Your task to perform on an android device: Open location settings Image 0: 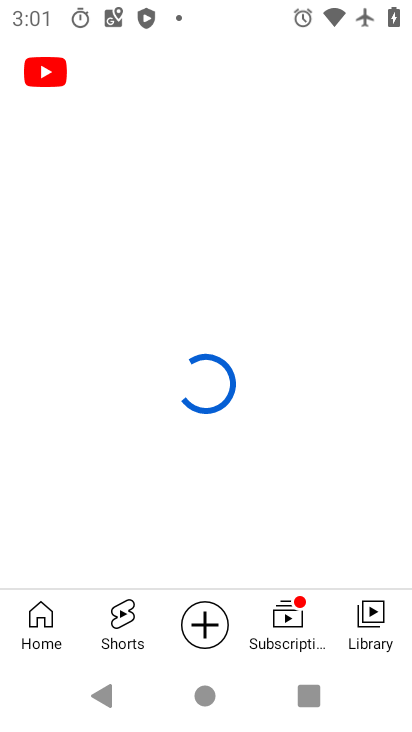
Step 0: press home button
Your task to perform on an android device: Open location settings Image 1: 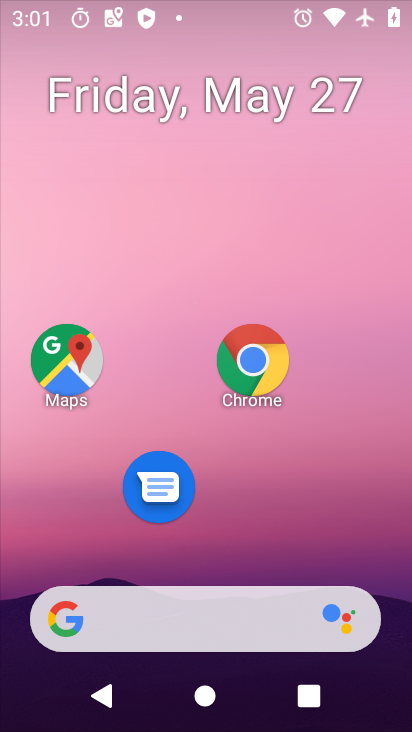
Step 1: drag from (256, 546) to (322, 18)
Your task to perform on an android device: Open location settings Image 2: 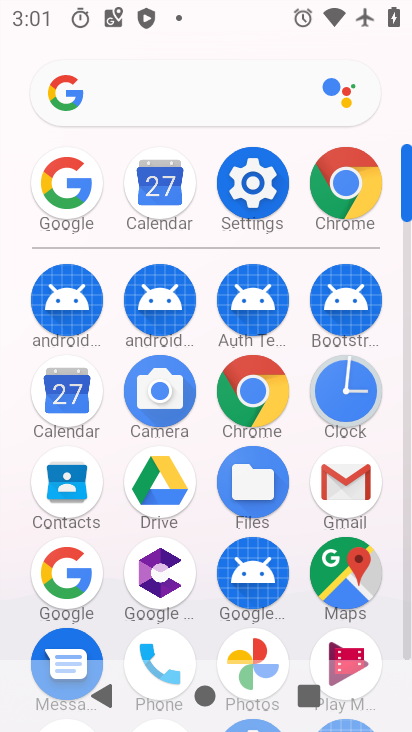
Step 2: click (251, 175)
Your task to perform on an android device: Open location settings Image 3: 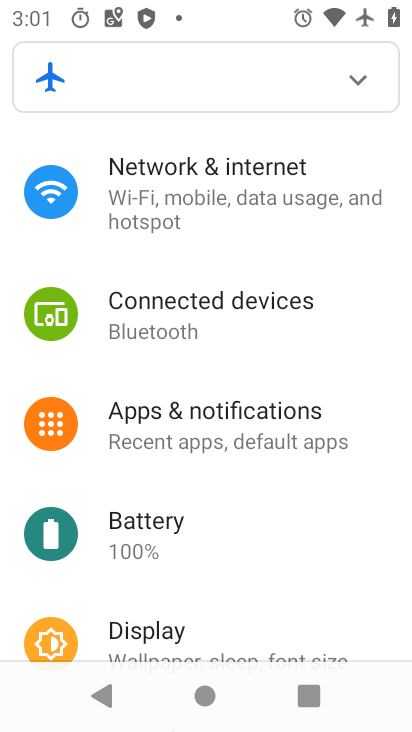
Step 3: drag from (236, 557) to (256, 68)
Your task to perform on an android device: Open location settings Image 4: 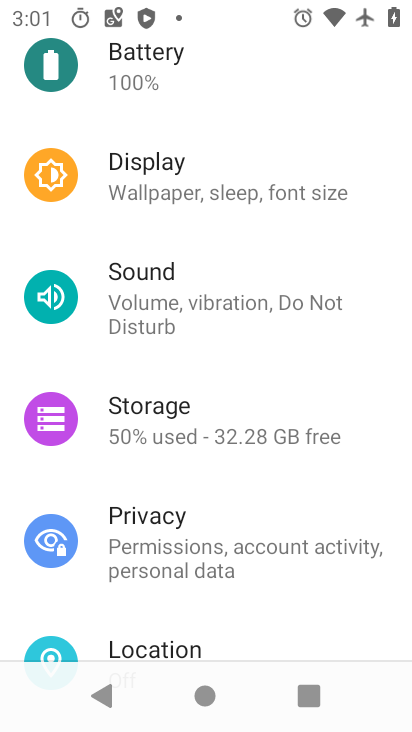
Step 4: drag from (196, 604) to (198, 421)
Your task to perform on an android device: Open location settings Image 5: 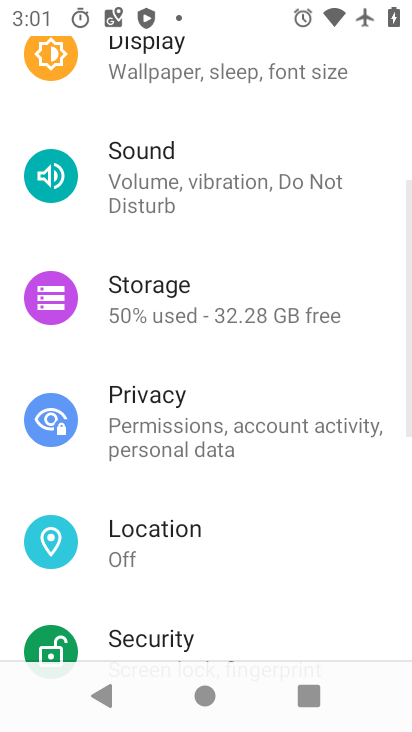
Step 5: click (130, 548)
Your task to perform on an android device: Open location settings Image 6: 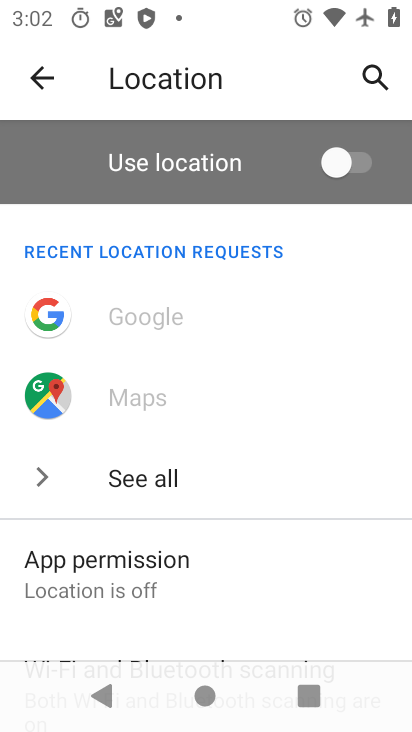
Step 6: task complete